Your task to perform on an android device: search for starred emails in the gmail app Image 0: 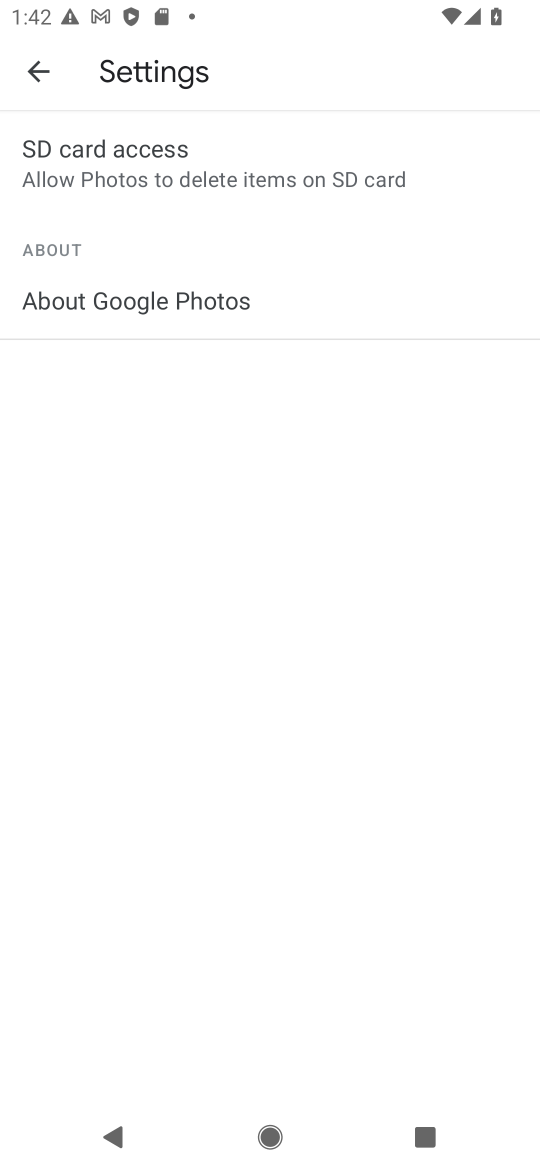
Step 0: press home button
Your task to perform on an android device: search for starred emails in the gmail app Image 1: 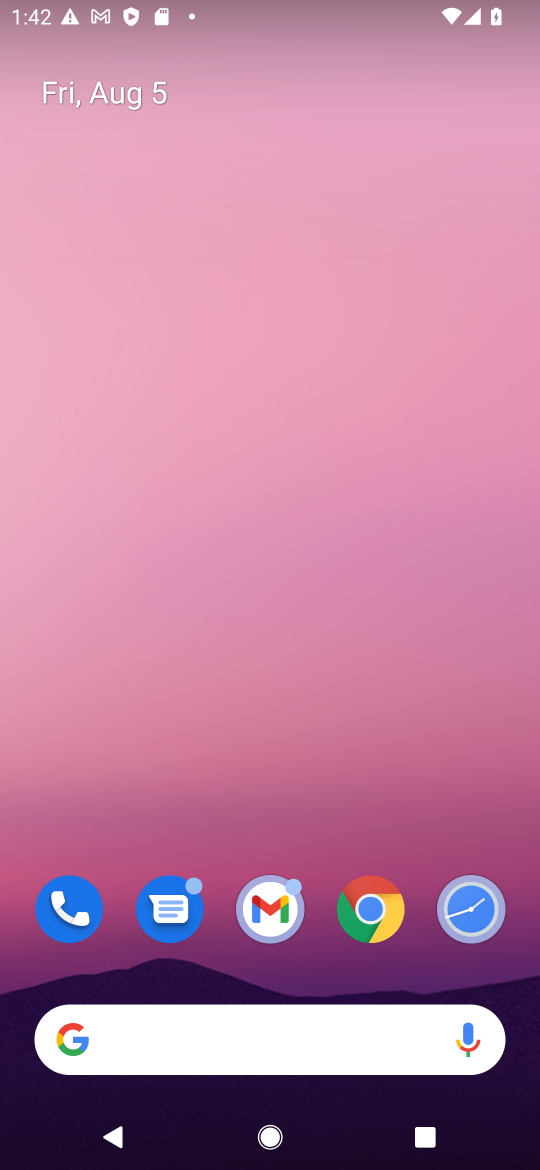
Step 1: click (271, 908)
Your task to perform on an android device: search for starred emails in the gmail app Image 2: 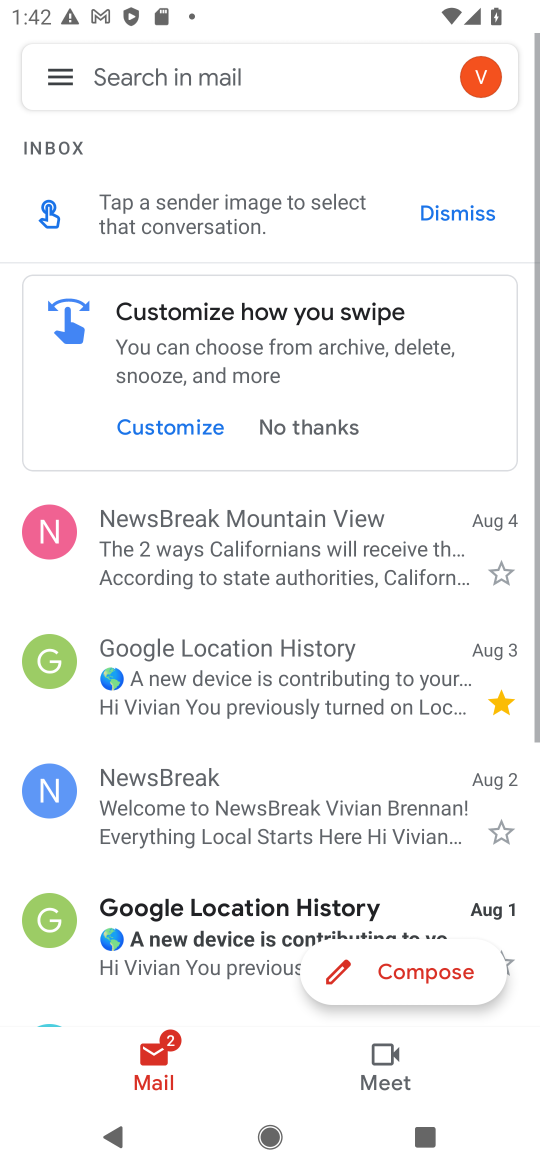
Step 2: click (61, 77)
Your task to perform on an android device: search for starred emails in the gmail app Image 3: 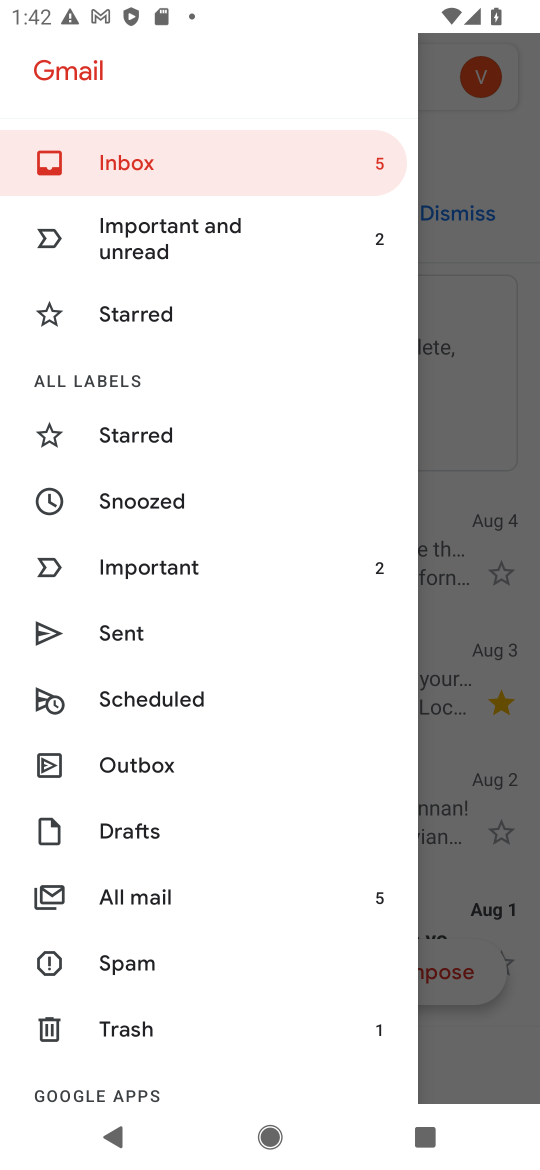
Step 3: click (149, 432)
Your task to perform on an android device: search for starred emails in the gmail app Image 4: 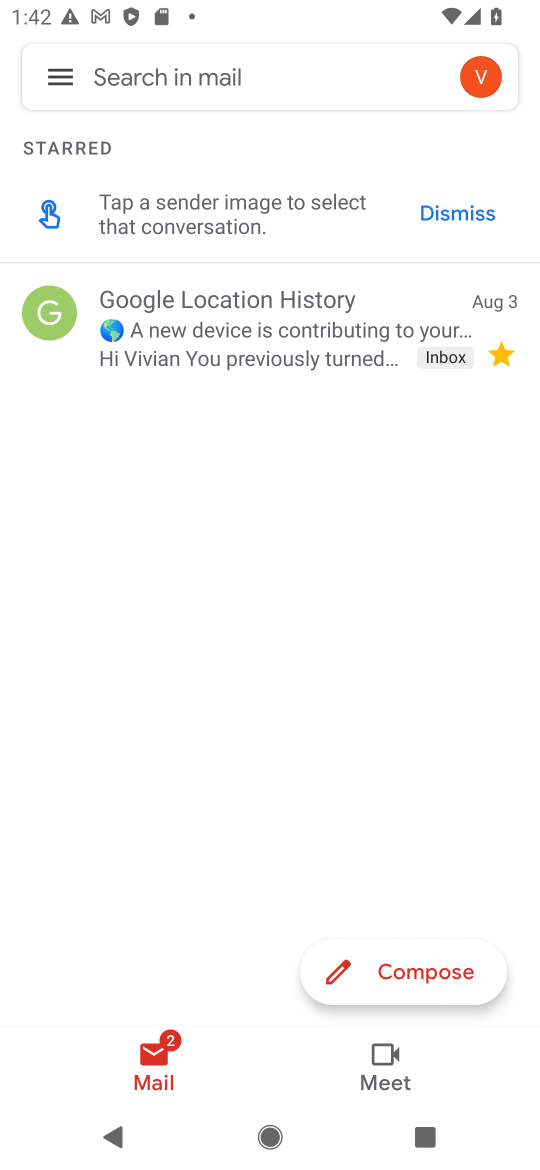
Step 4: task complete